Your task to perform on an android device: Play the last video I watched on Youtube Image 0: 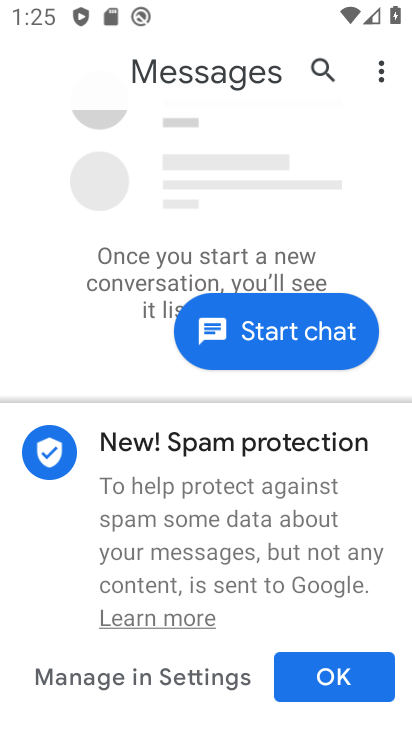
Step 0: press home button
Your task to perform on an android device: Play the last video I watched on Youtube Image 1: 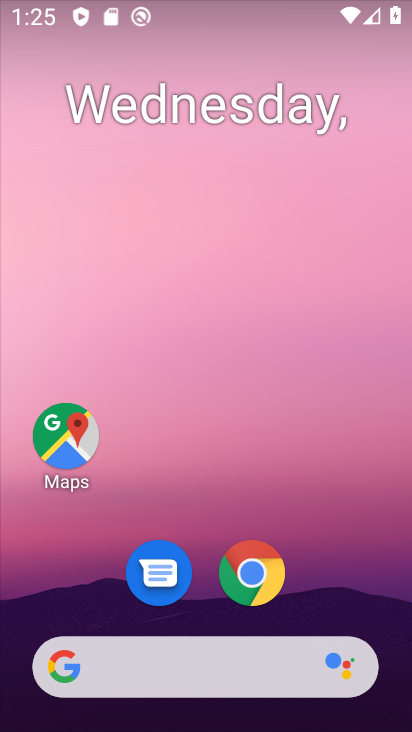
Step 1: drag from (206, 541) to (231, 53)
Your task to perform on an android device: Play the last video I watched on Youtube Image 2: 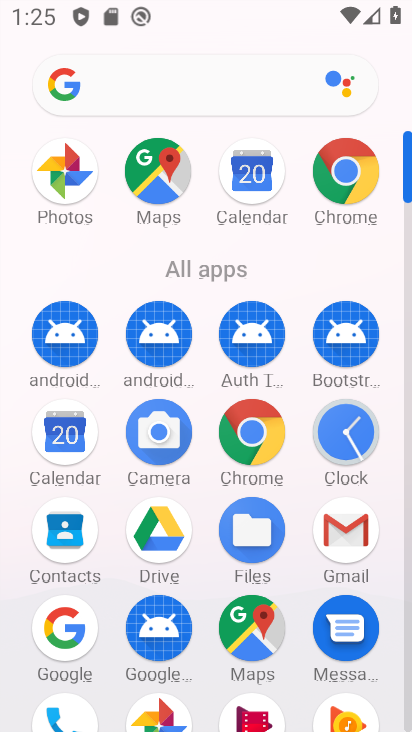
Step 2: drag from (297, 531) to (313, 144)
Your task to perform on an android device: Play the last video I watched on Youtube Image 3: 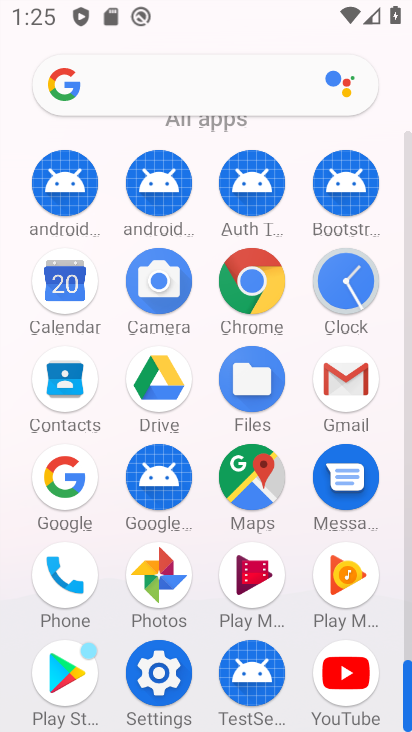
Step 3: click (346, 676)
Your task to perform on an android device: Play the last video I watched on Youtube Image 4: 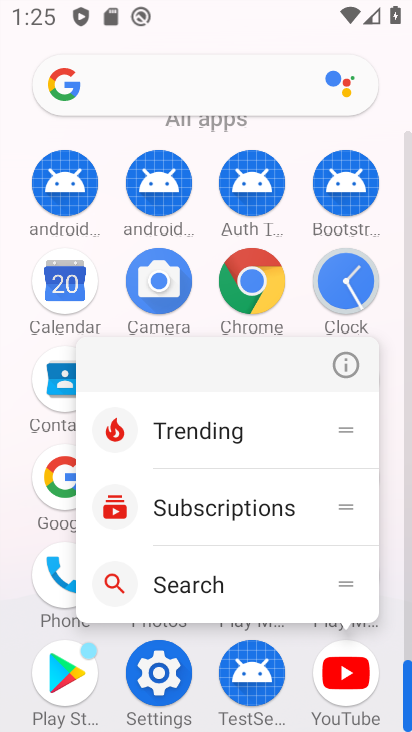
Step 4: click (343, 668)
Your task to perform on an android device: Play the last video I watched on Youtube Image 5: 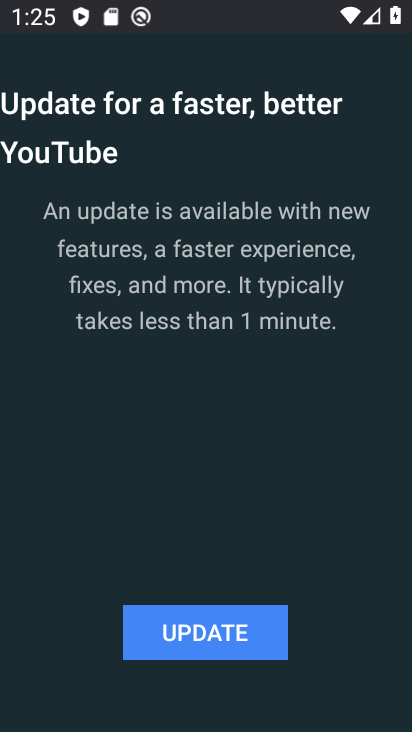
Step 5: click (187, 634)
Your task to perform on an android device: Play the last video I watched on Youtube Image 6: 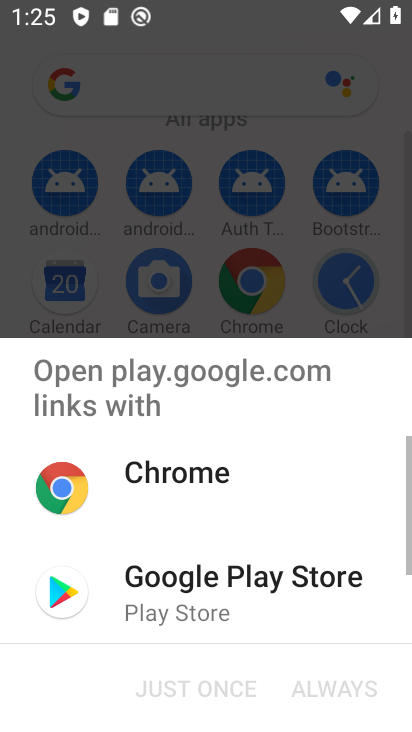
Step 6: click (180, 581)
Your task to perform on an android device: Play the last video I watched on Youtube Image 7: 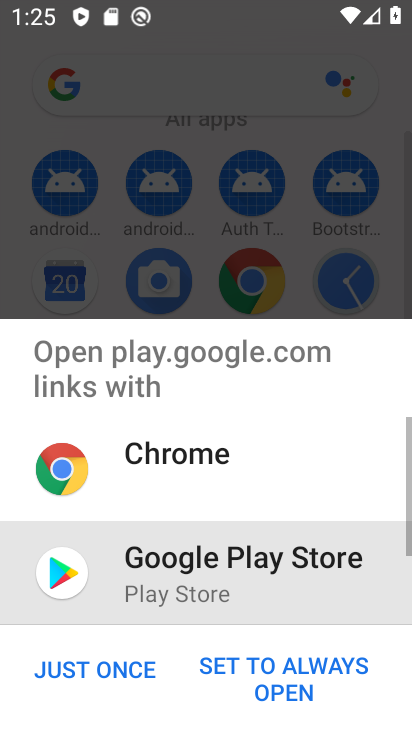
Step 7: click (115, 673)
Your task to perform on an android device: Play the last video I watched on Youtube Image 8: 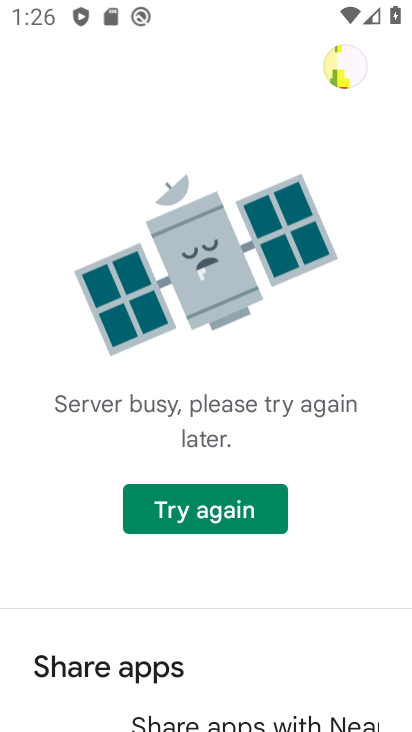
Step 8: task complete